Your task to perform on an android device: add a contact Image 0: 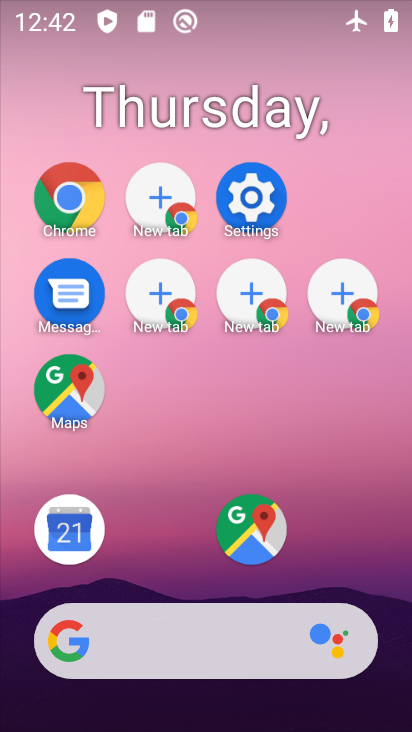
Step 0: drag from (281, 694) to (146, 244)
Your task to perform on an android device: add a contact Image 1: 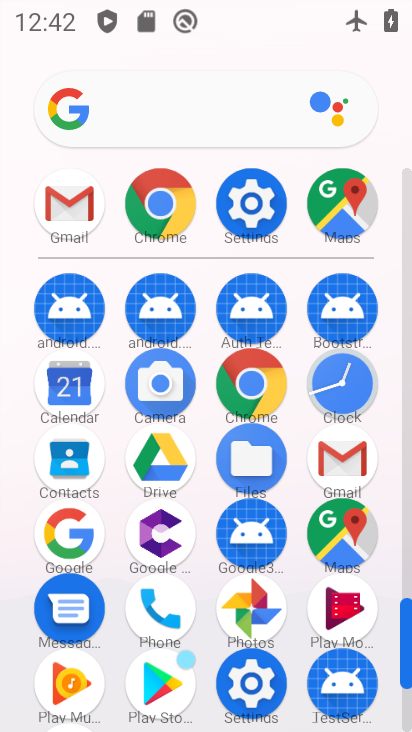
Step 1: click (63, 444)
Your task to perform on an android device: add a contact Image 2: 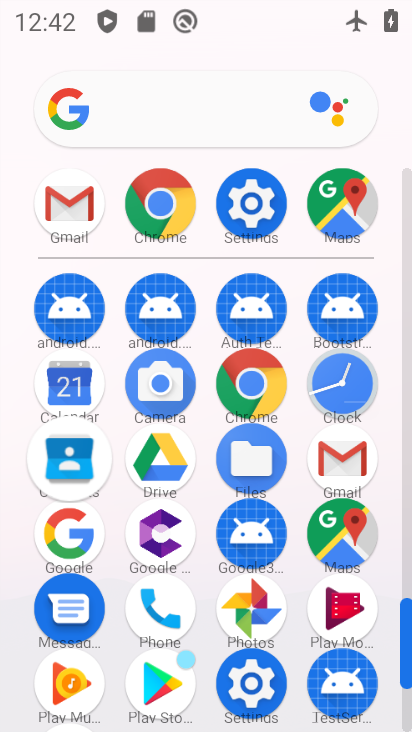
Step 2: click (63, 444)
Your task to perform on an android device: add a contact Image 3: 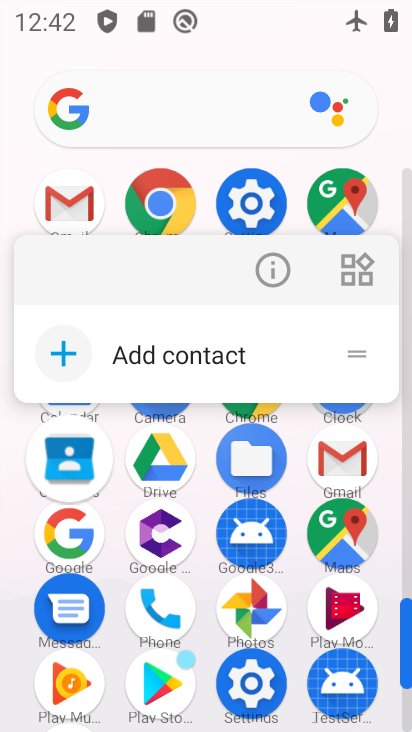
Step 3: drag from (63, 444) to (77, 494)
Your task to perform on an android device: add a contact Image 4: 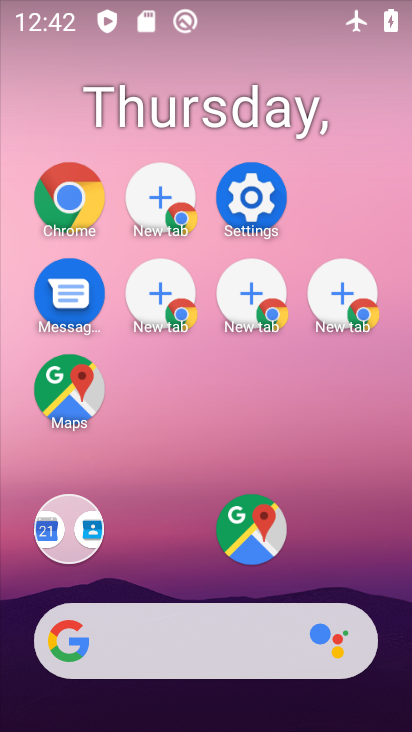
Step 4: click (249, 187)
Your task to perform on an android device: add a contact Image 5: 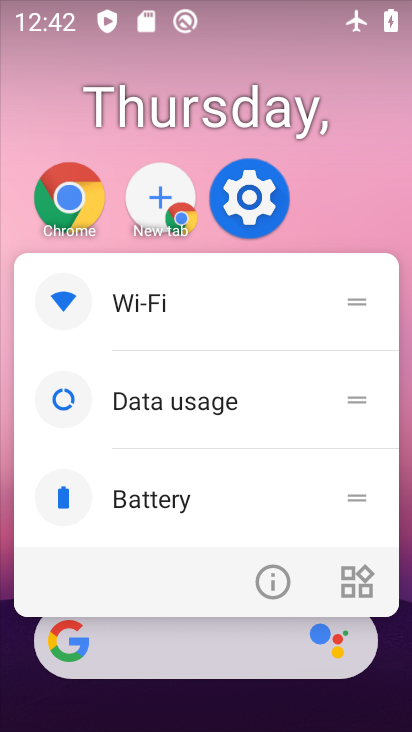
Step 5: click (251, 207)
Your task to perform on an android device: add a contact Image 6: 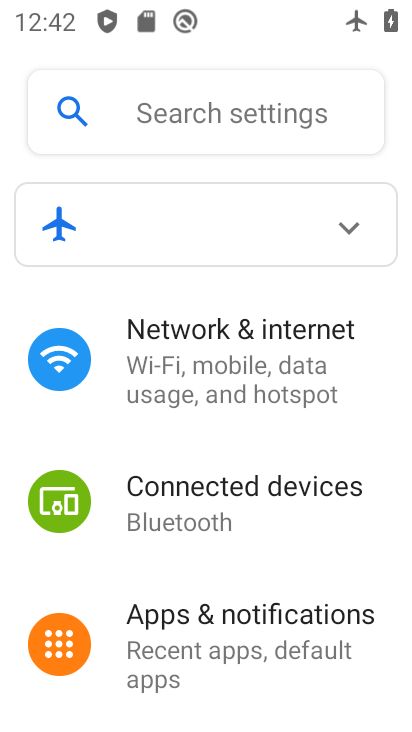
Step 6: drag from (229, 568) to (211, 464)
Your task to perform on an android device: add a contact Image 7: 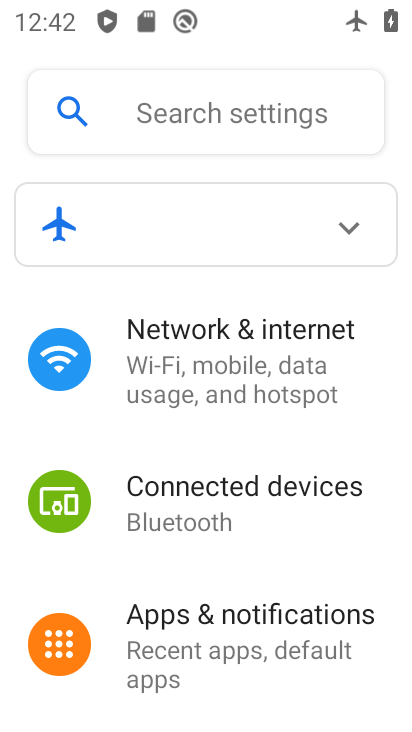
Step 7: drag from (255, 496) to (340, 245)
Your task to perform on an android device: add a contact Image 8: 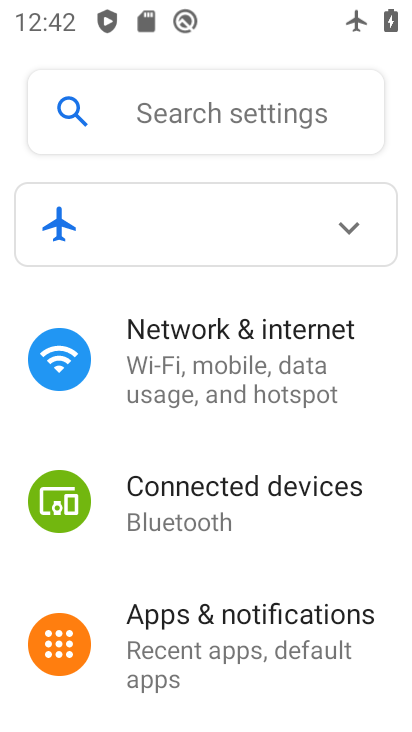
Step 8: press home button
Your task to perform on an android device: add a contact Image 9: 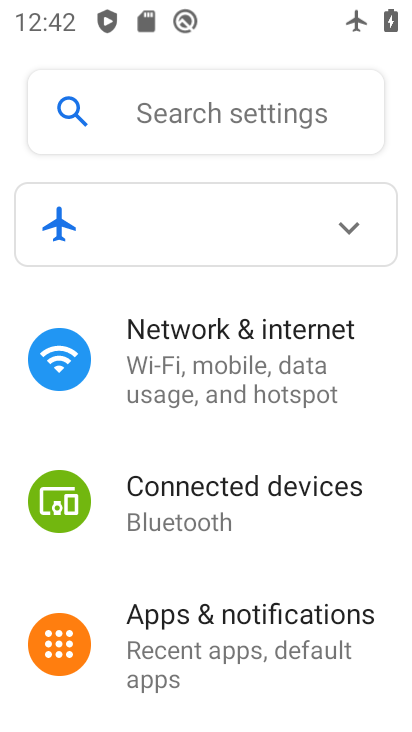
Step 9: press home button
Your task to perform on an android device: add a contact Image 10: 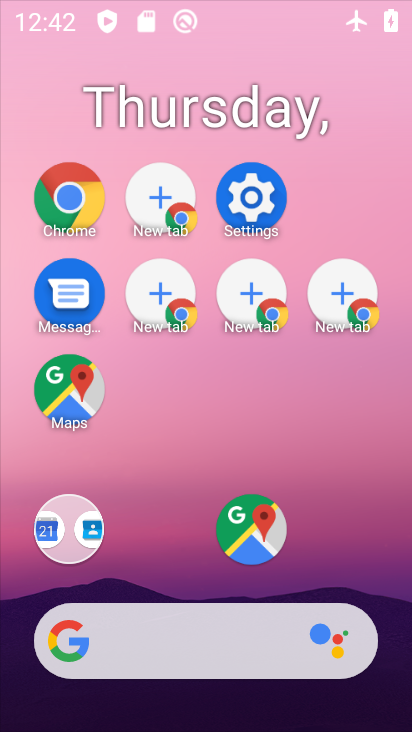
Step 10: press home button
Your task to perform on an android device: add a contact Image 11: 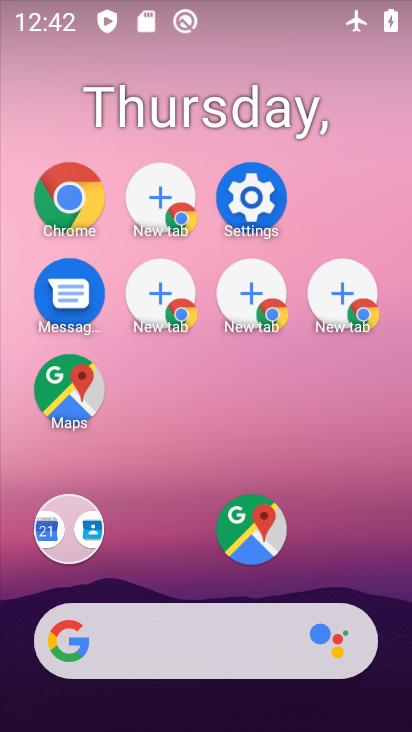
Step 11: drag from (266, 531) to (296, 139)
Your task to perform on an android device: add a contact Image 12: 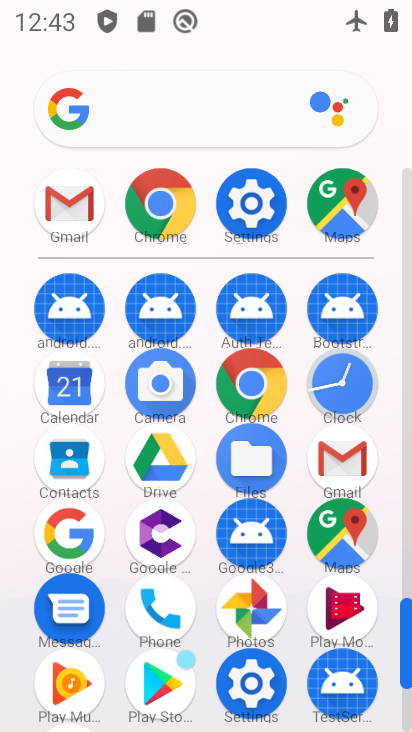
Step 12: click (72, 468)
Your task to perform on an android device: add a contact Image 13: 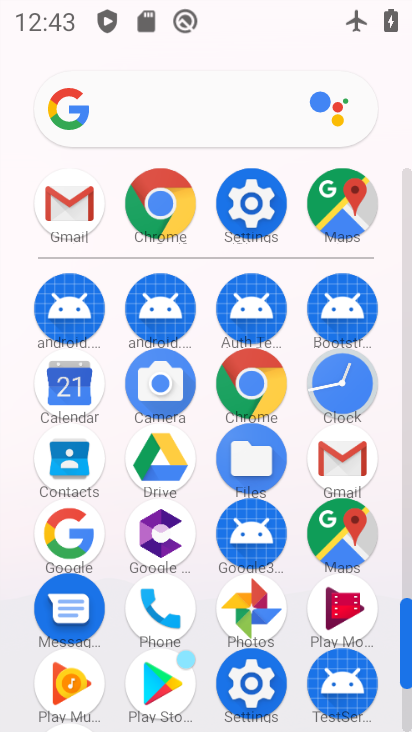
Step 13: click (72, 468)
Your task to perform on an android device: add a contact Image 14: 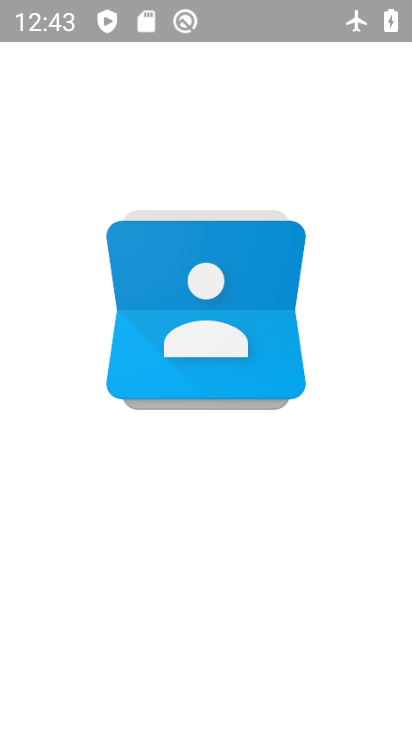
Step 14: click (72, 468)
Your task to perform on an android device: add a contact Image 15: 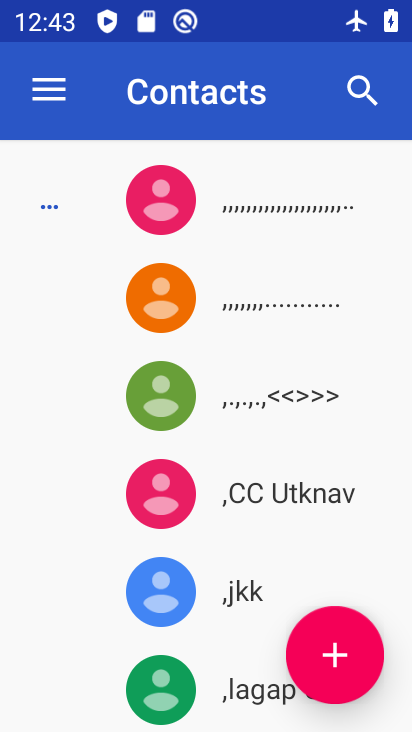
Step 15: click (329, 648)
Your task to perform on an android device: add a contact Image 16: 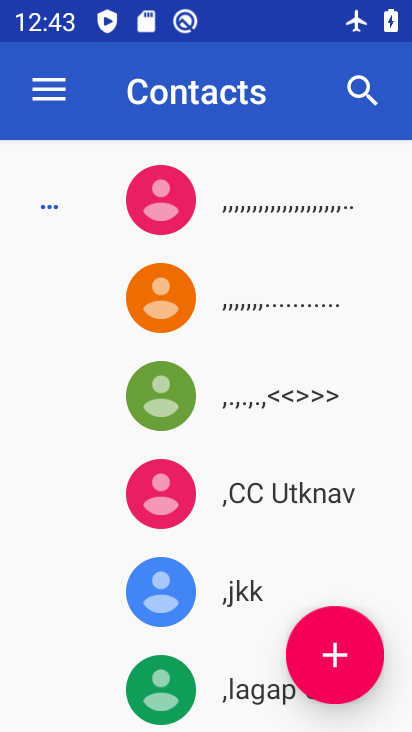
Step 16: click (329, 648)
Your task to perform on an android device: add a contact Image 17: 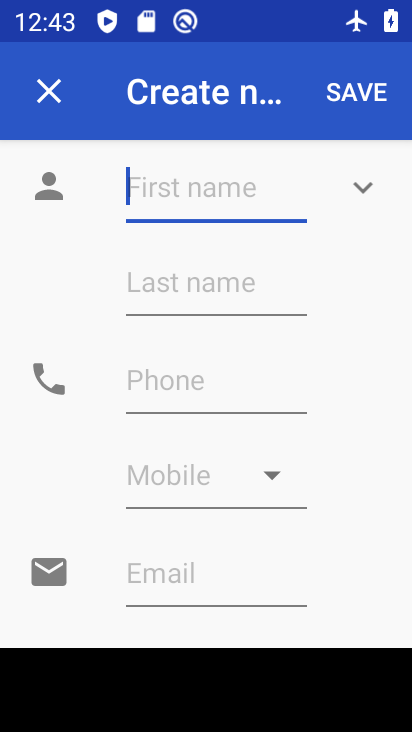
Step 17: type "meena"
Your task to perform on an android device: add a contact Image 18: 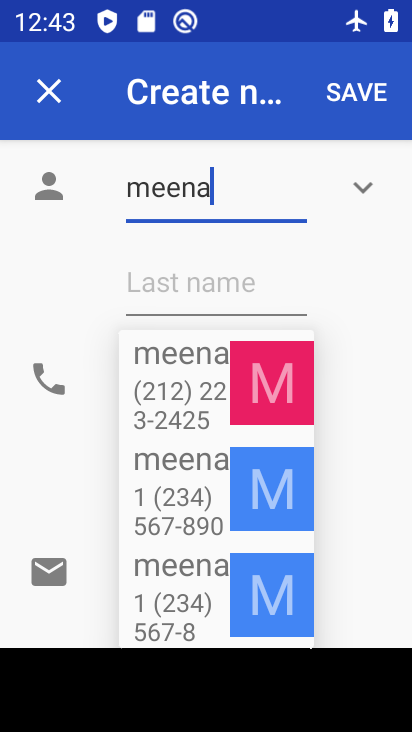
Step 18: type "kkkk"
Your task to perform on an android device: add a contact Image 19: 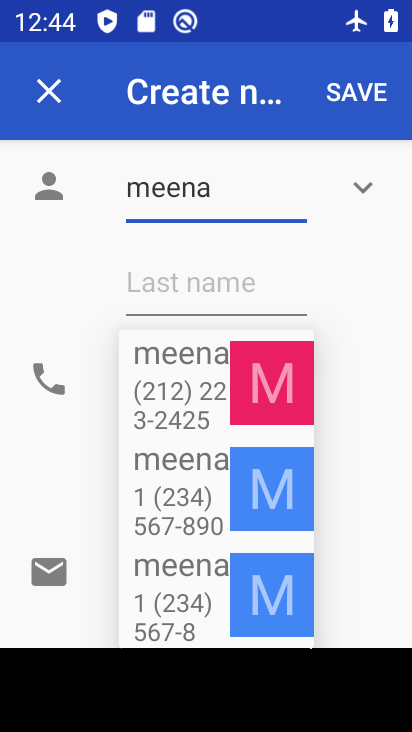
Step 19: click (342, 380)
Your task to perform on an android device: add a contact Image 20: 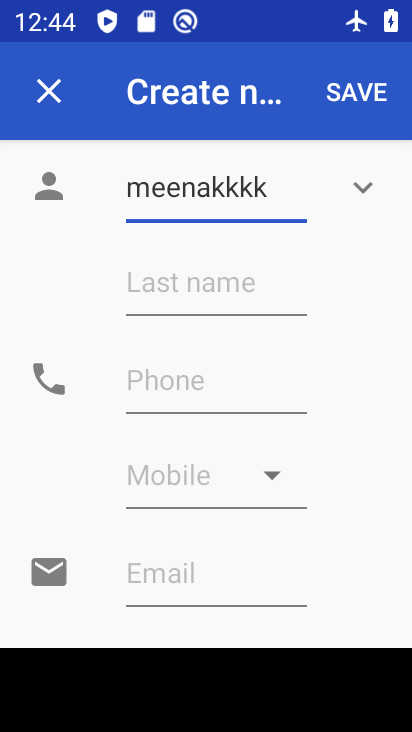
Step 20: click (151, 377)
Your task to perform on an android device: add a contact Image 21: 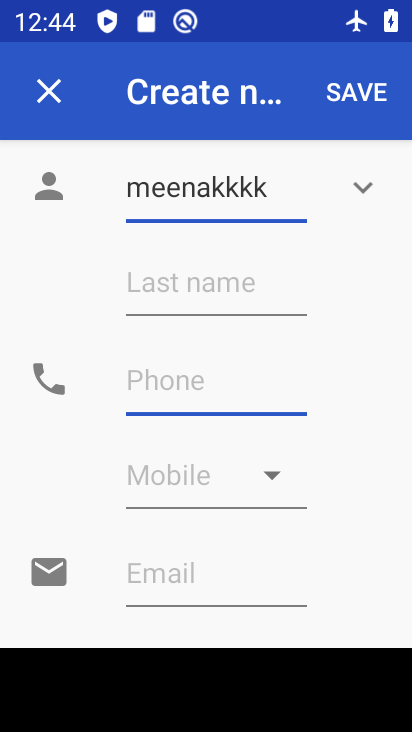
Step 21: click (151, 377)
Your task to perform on an android device: add a contact Image 22: 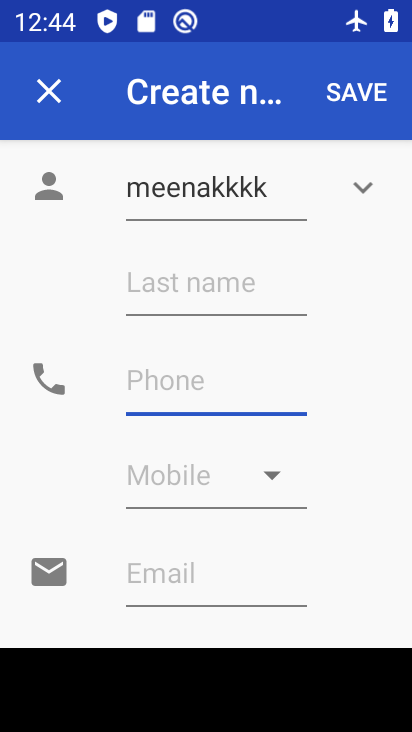
Step 22: type "9888674567"
Your task to perform on an android device: add a contact Image 23: 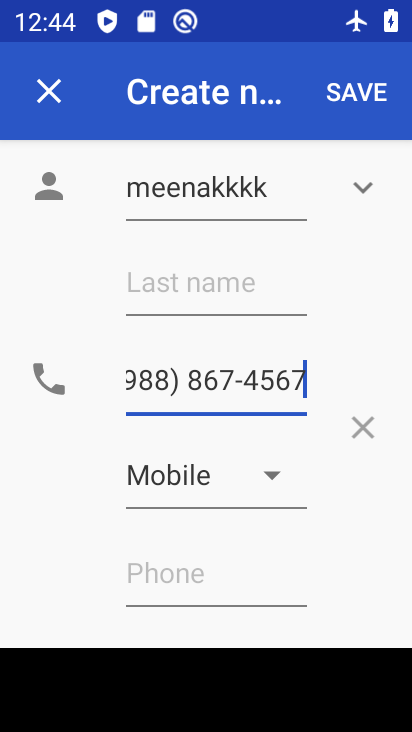
Step 23: click (369, 89)
Your task to perform on an android device: add a contact Image 24: 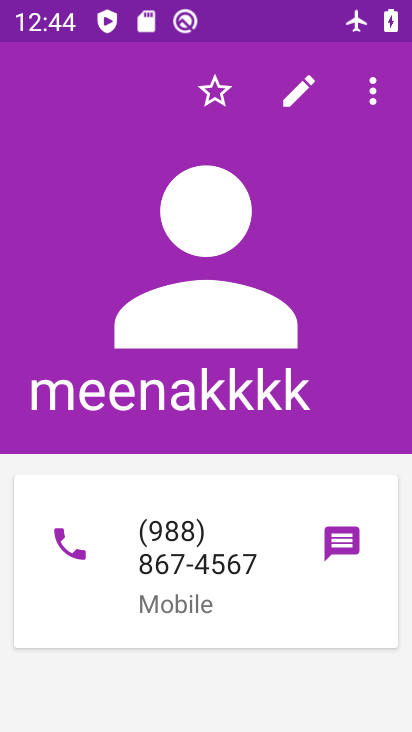
Step 24: task complete